Your task to perform on an android device: change the clock display to analog Image 0: 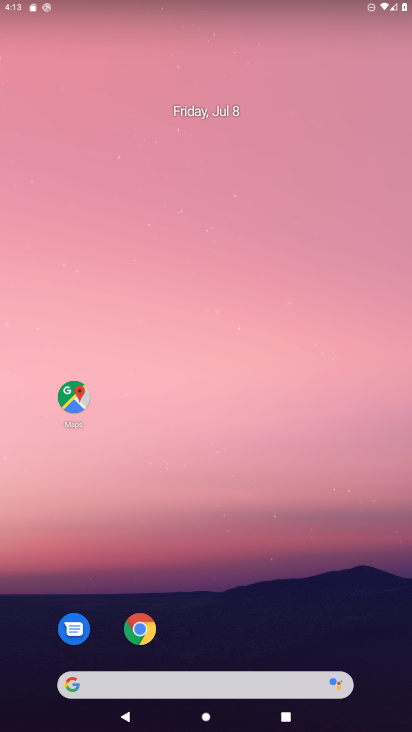
Step 0: drag from (262, 618) to (262, 87)
Your task to perform on an android device: change the clock display to analog Image 1: 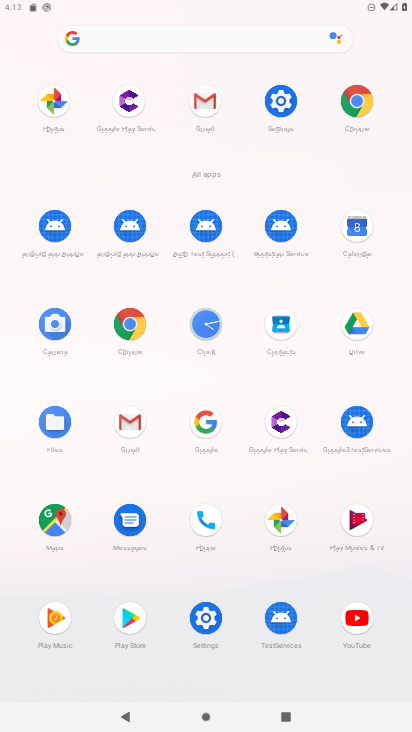
Step 1: click (272, 99)
Your task to perform on an android device: change the clock display to analog Image 2: 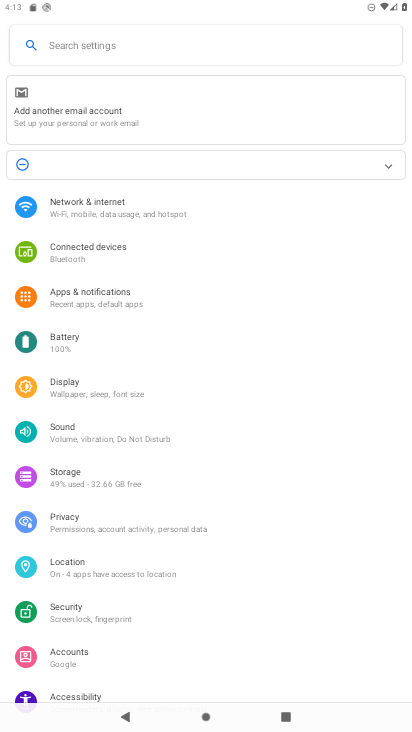
Step 2: drag from (164, 670) to (171, 273)
Your task to perform on an android device: change the clock display to analog Image 3: 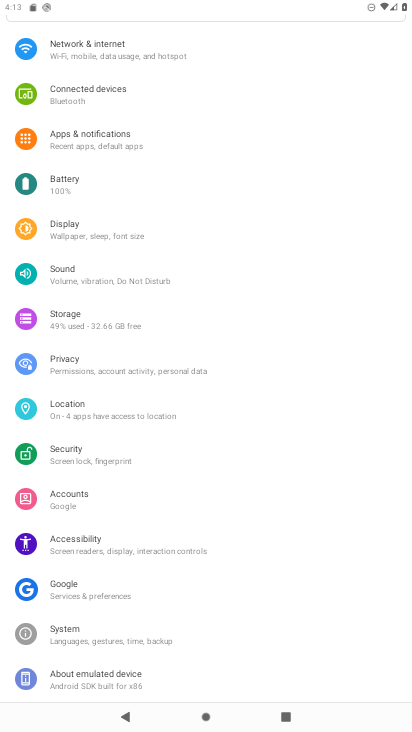
Step 3: press home button
Your task to perform on an android device: change the clock display to analog Image 4: 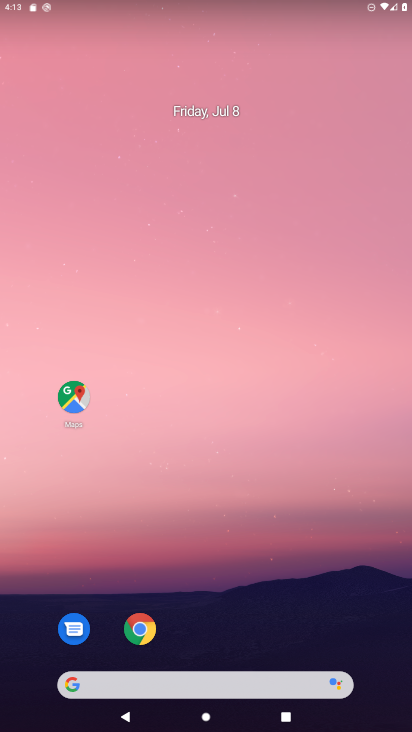
Step 4: drag from (270, 646) to (263, 149)
Your task to perform on an android device: change the clock display to analog Image 5: 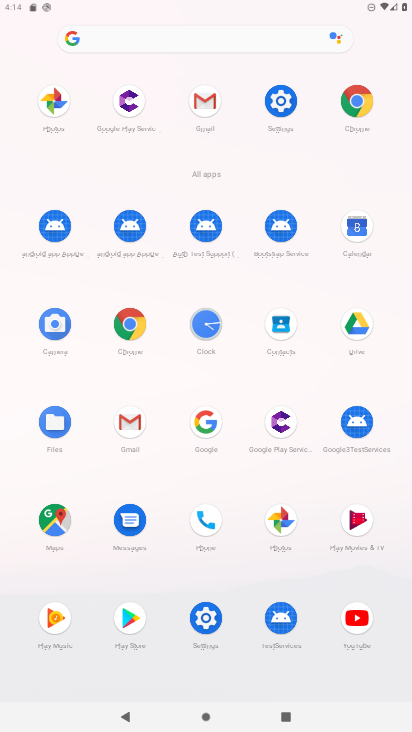
Step 5: click (218, 334)
Your task to perform on an android device: change the clock display to analog Image 6: 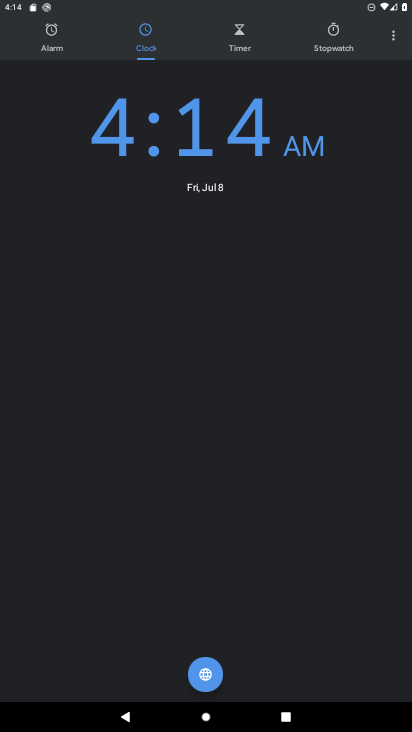
Step 6: click (381, 46)
Your task to perform on an android device: change the clock display to analog Image 7: 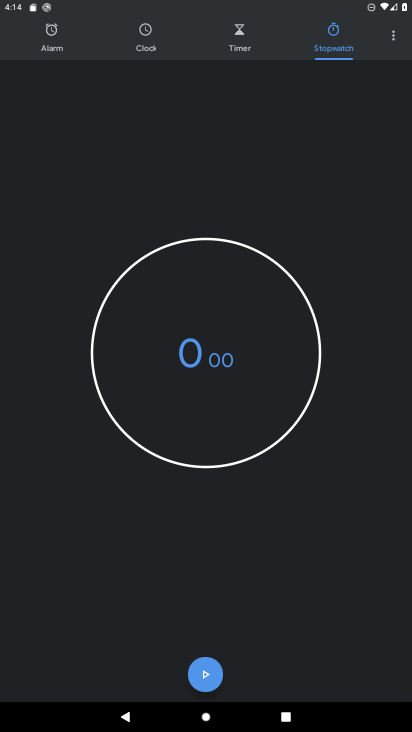
Step 7: click (383, 38)
Your task to perform on an android device: change the clock display to analog Image 8: 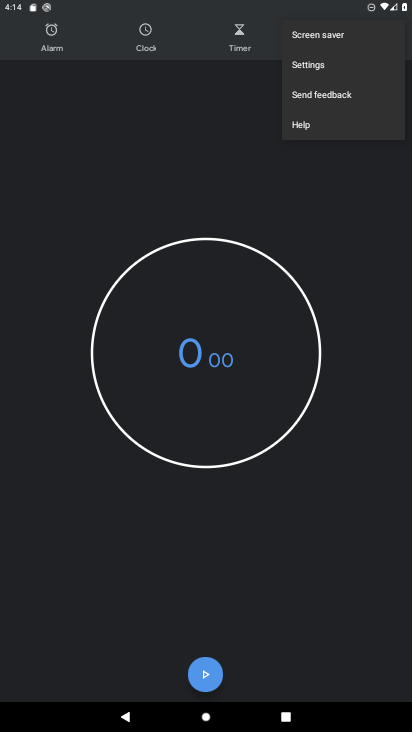
Step 8: click (338, 61)
Your task to perform on an android device: change the clock display to analog Image 9: 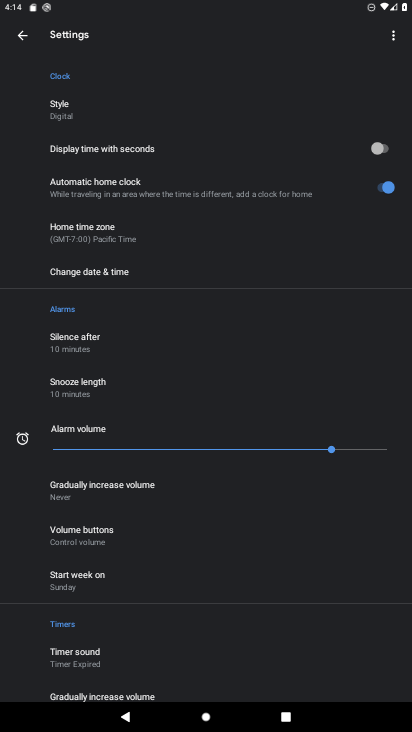
Step 9: click (113, 118)
Your task to perform on an android device: change the clock display to analog Image 10: 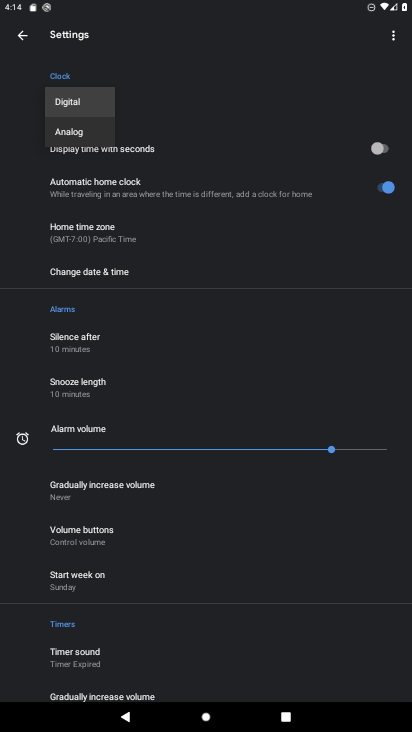
Step 10: click (96, 133)
Your task to perform on an android device: change the clock display to analog Image 11: 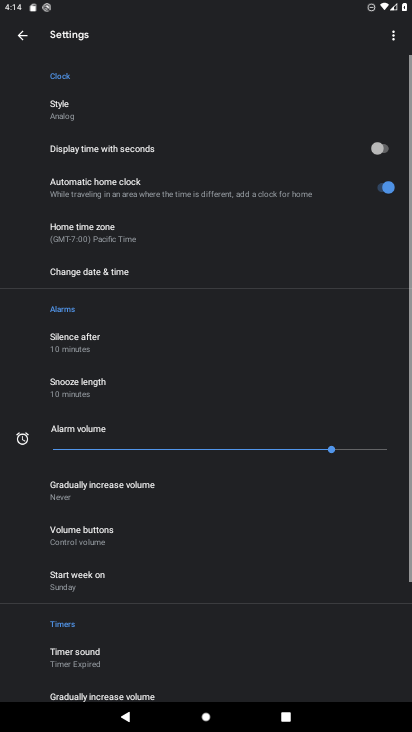
Step 11: task complete